Your task to perform on an android device: Go to wifi settings Image 0: 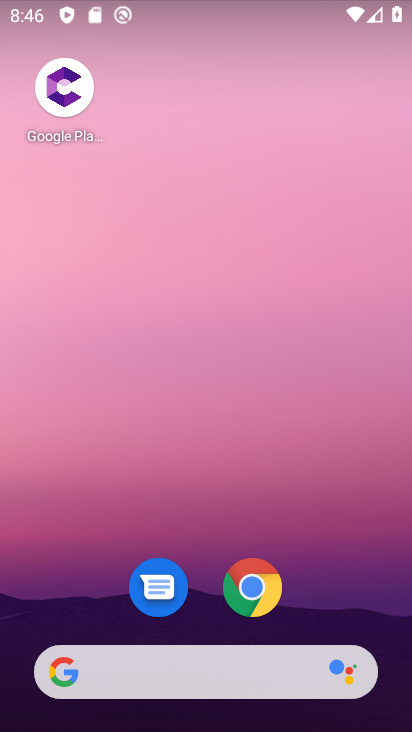
Step 0: drag from (385, 612) to (372, 2)
Your task to perform on an android device: Go to wifi settings Image 1: 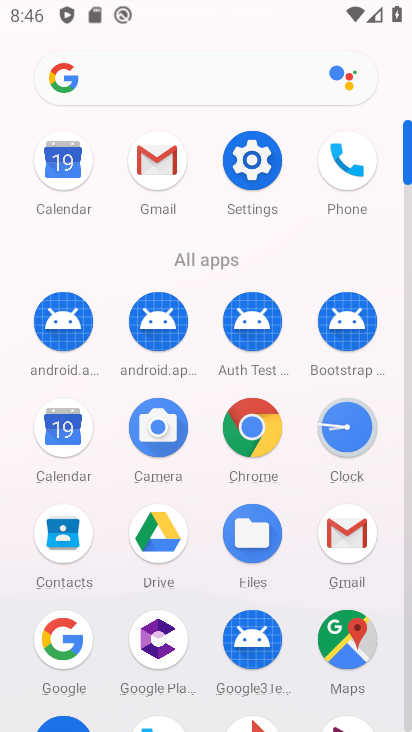
Step 1: click (258, 175)
Your task to perform on an android device: Go to wifi settings Image 2: 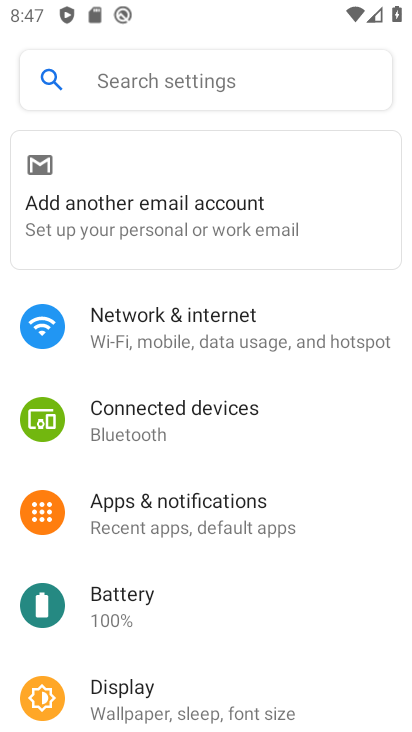
Step 2: click (136, 327)
Your task to perform on an android device: Go to wifi settings Image 3: 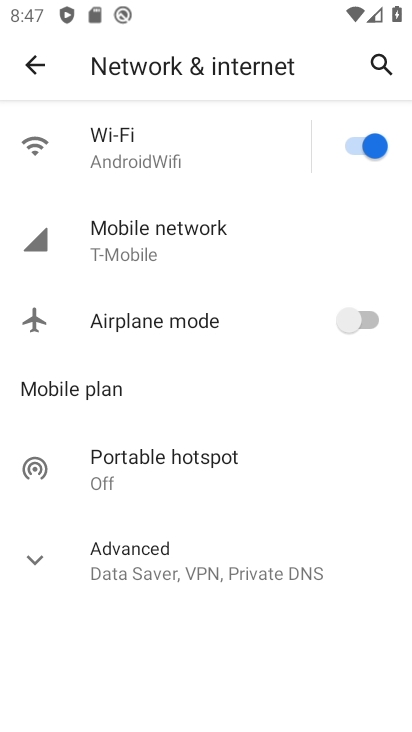
Step 3: click (90, 150)
Your task to perform on an android device: Go to wifi settings Image 4: 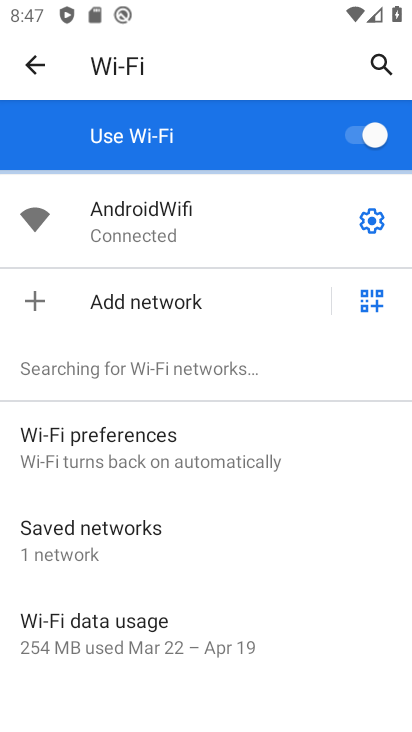
Step 4: task complete